Your task to perform on an android device: Search for a new lawnmower on home depot Image 0: 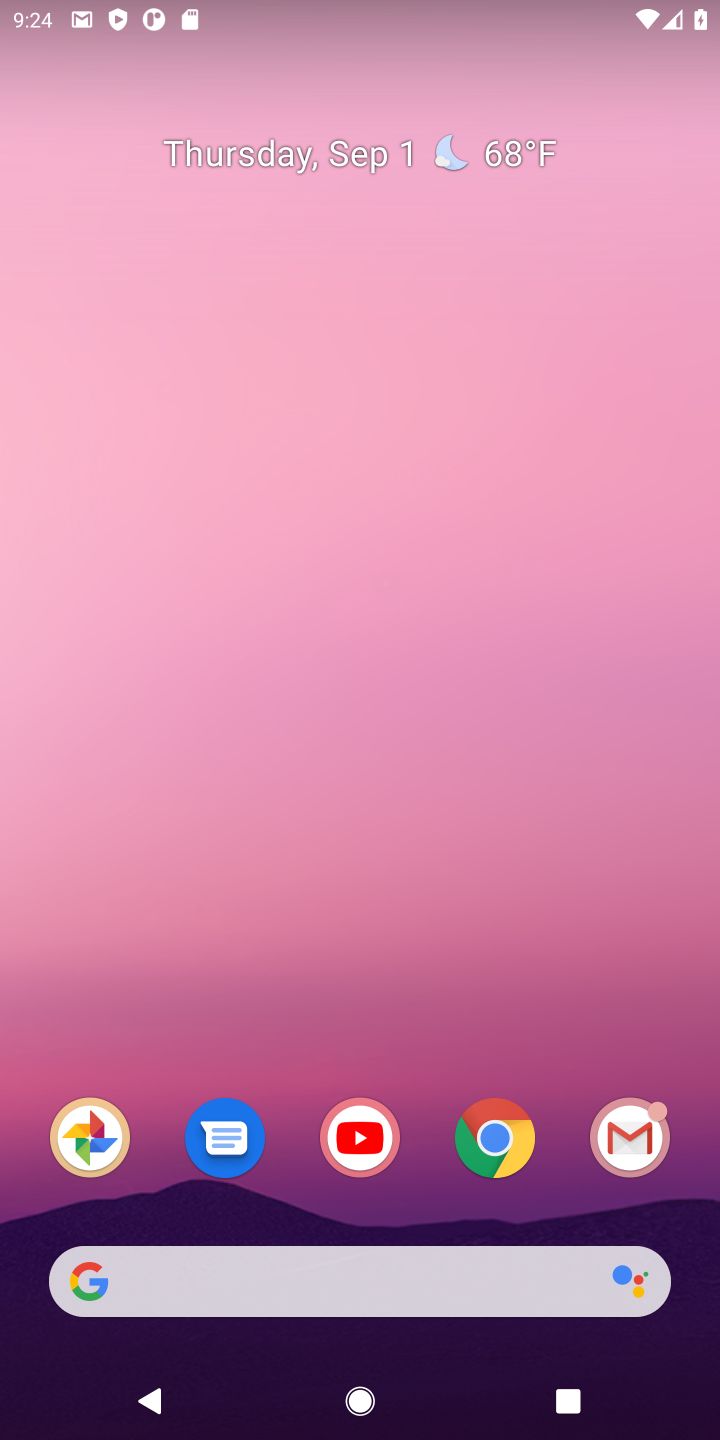
Step 0: click (502, 1133)
Your task to perform on an android device: Search for a new lawnmower on home depot Image 1: 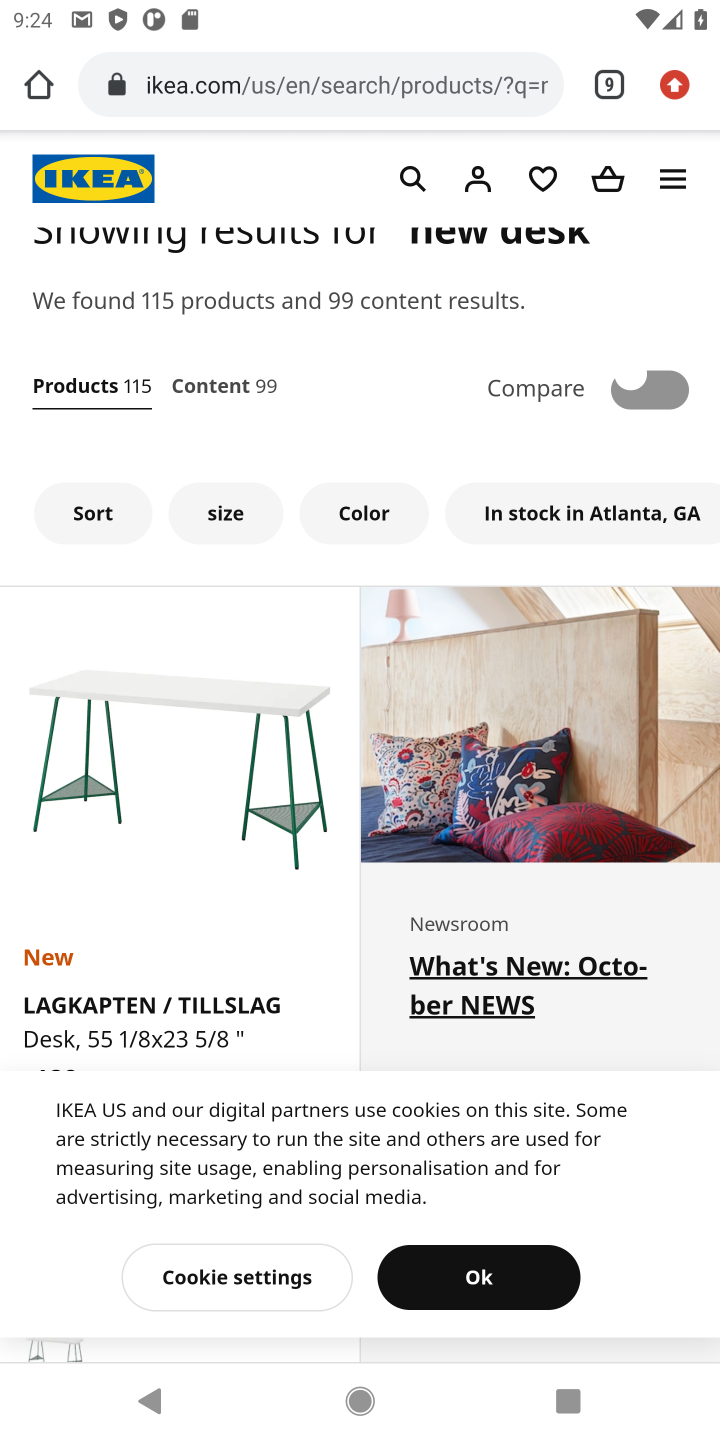
Step 1: click (603, 88)
Your task to perform on an android device: Search for a new lawnmower on home depot Image 2: 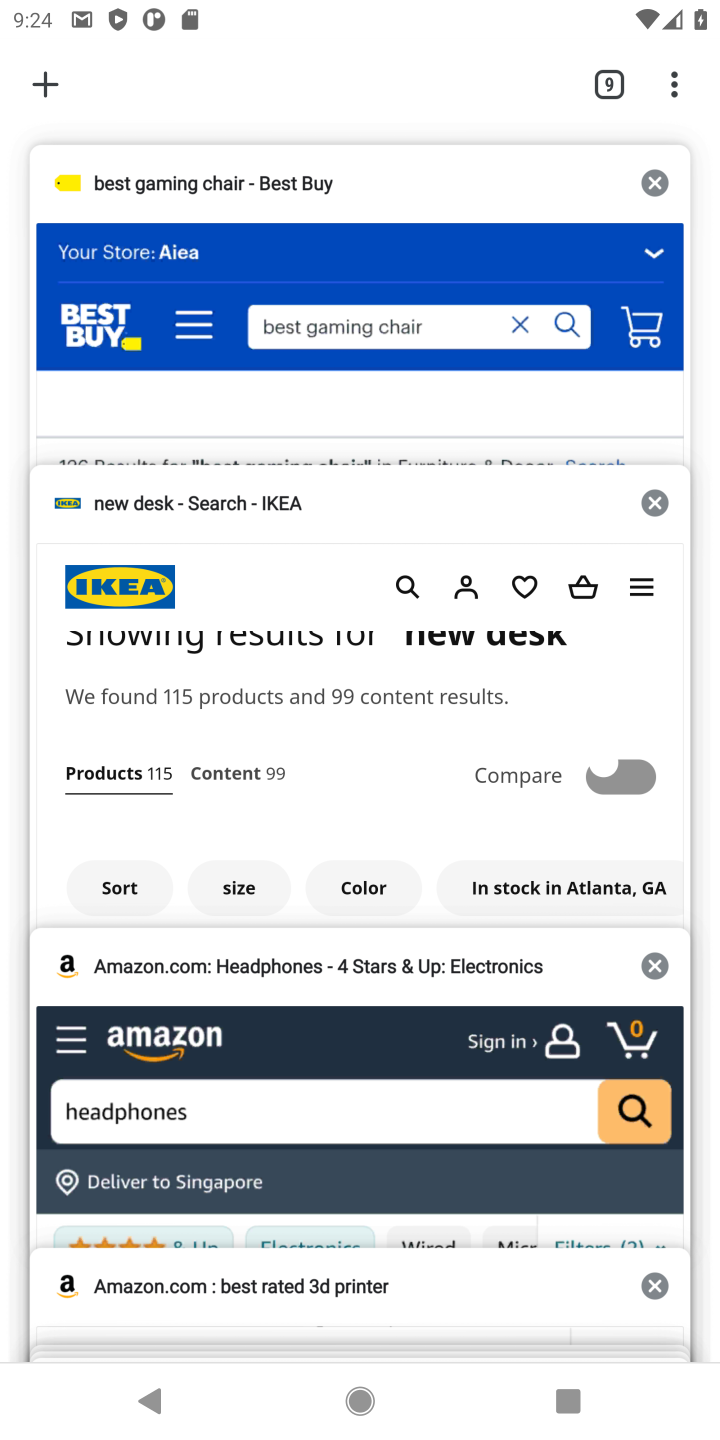
Step 2: drag from (222, 1010) to (172, 440)
Your task to perform on an android device: Search for a new lawnmower on home depot Image 3: 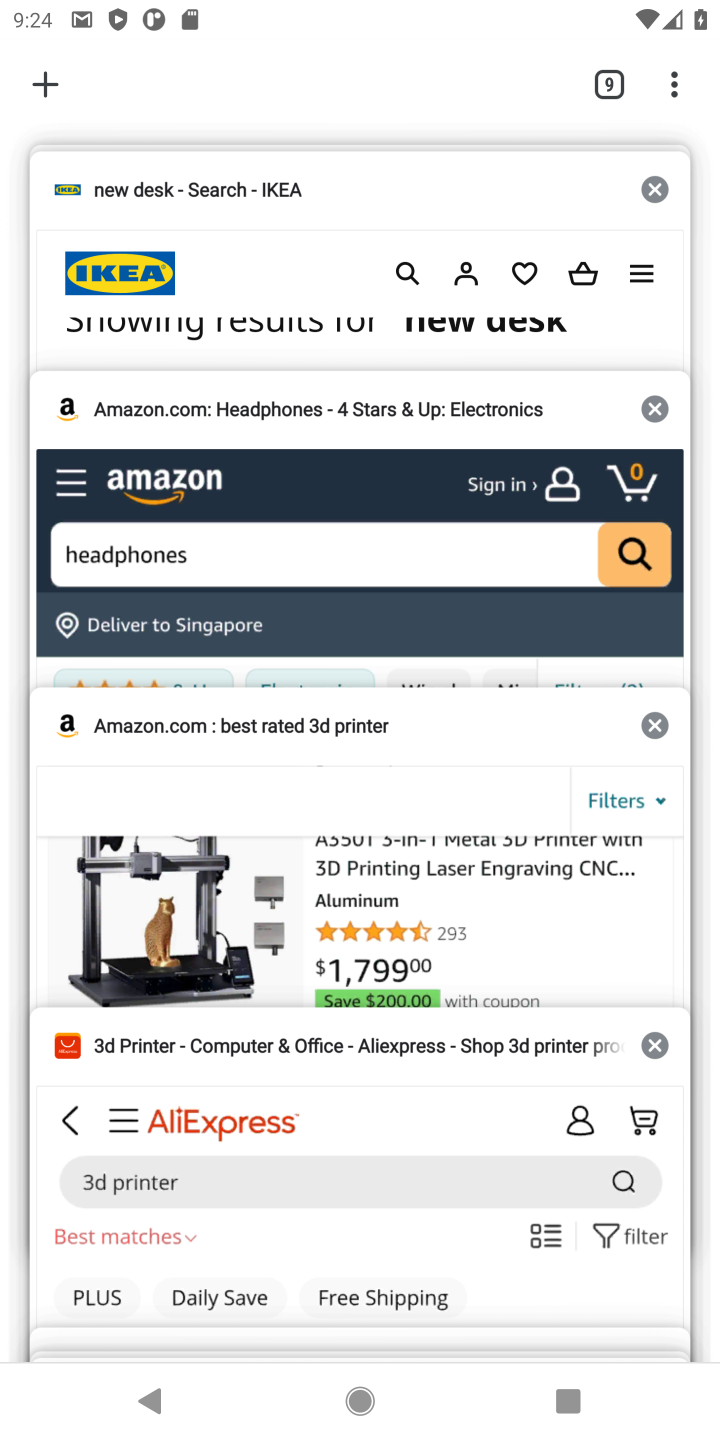
Step 3: drag from (296, 838) to (246, 139)
Your task to perform on an android device: Search for a new lawnmower on home depot Image 4: 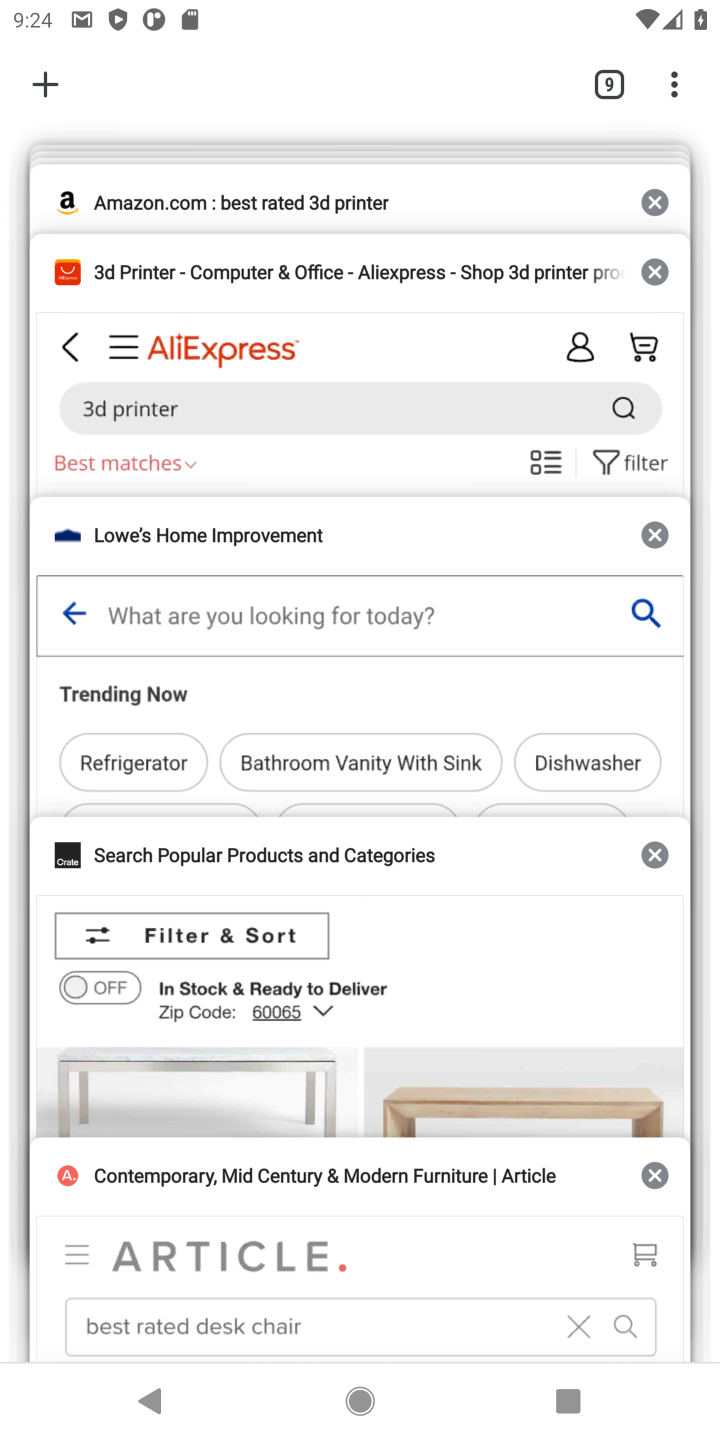
Step 4: drag from (314, 1108) to (321, 517)
Your task to perform on an android device: Search for a new lawnmower on home depot Image 5: 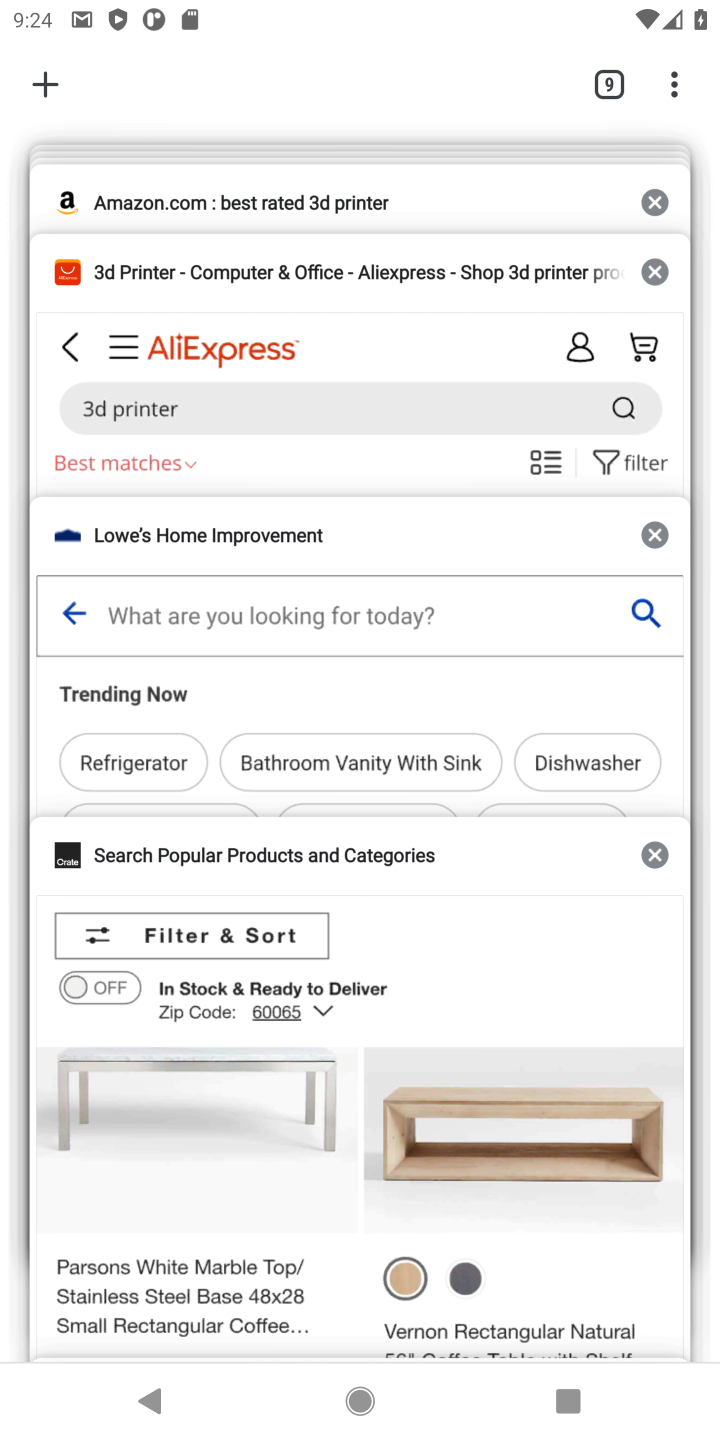
Step 5: click (39, 73)
Your task to perform on an android device: Search for a new lawnmower on home depot Image 6: 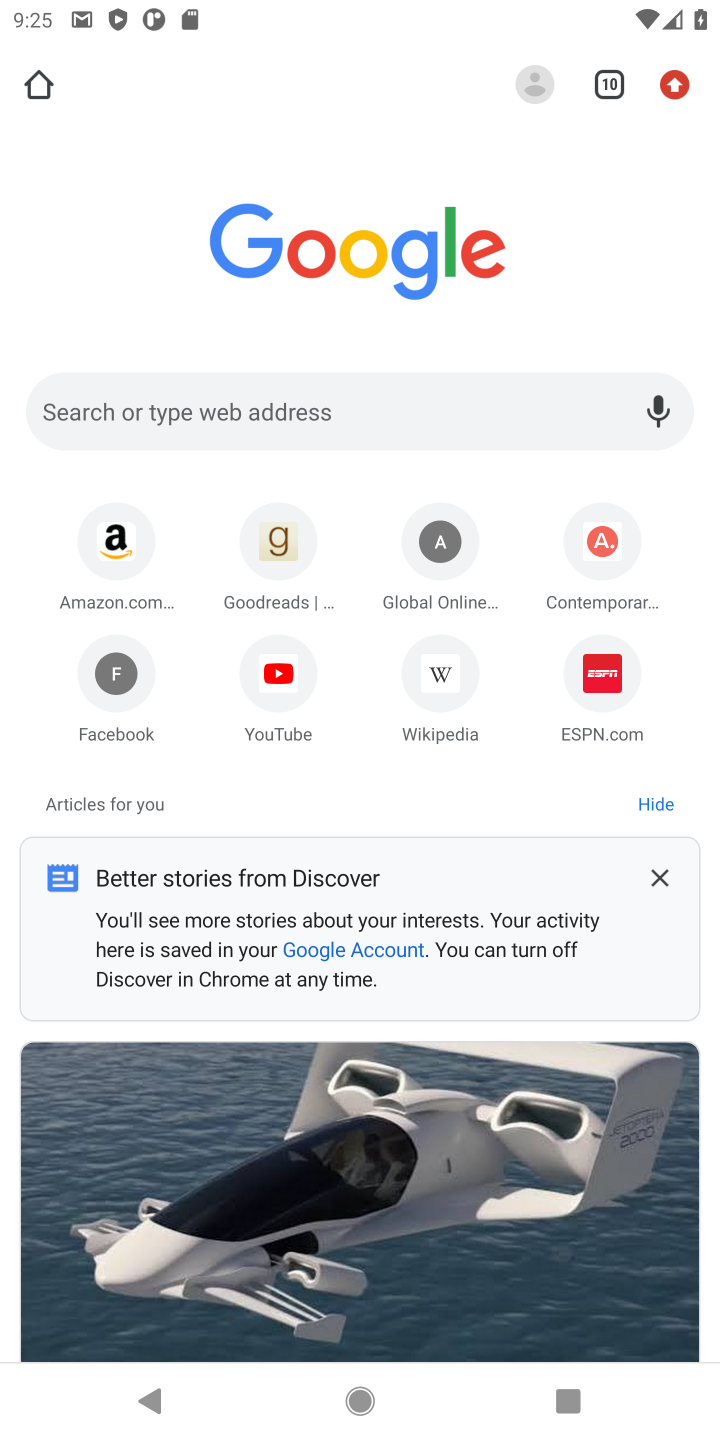
Step 6: click (174, 403)
Your task to perform on an android device: Search for a new lawnmower on home depot Image 7: 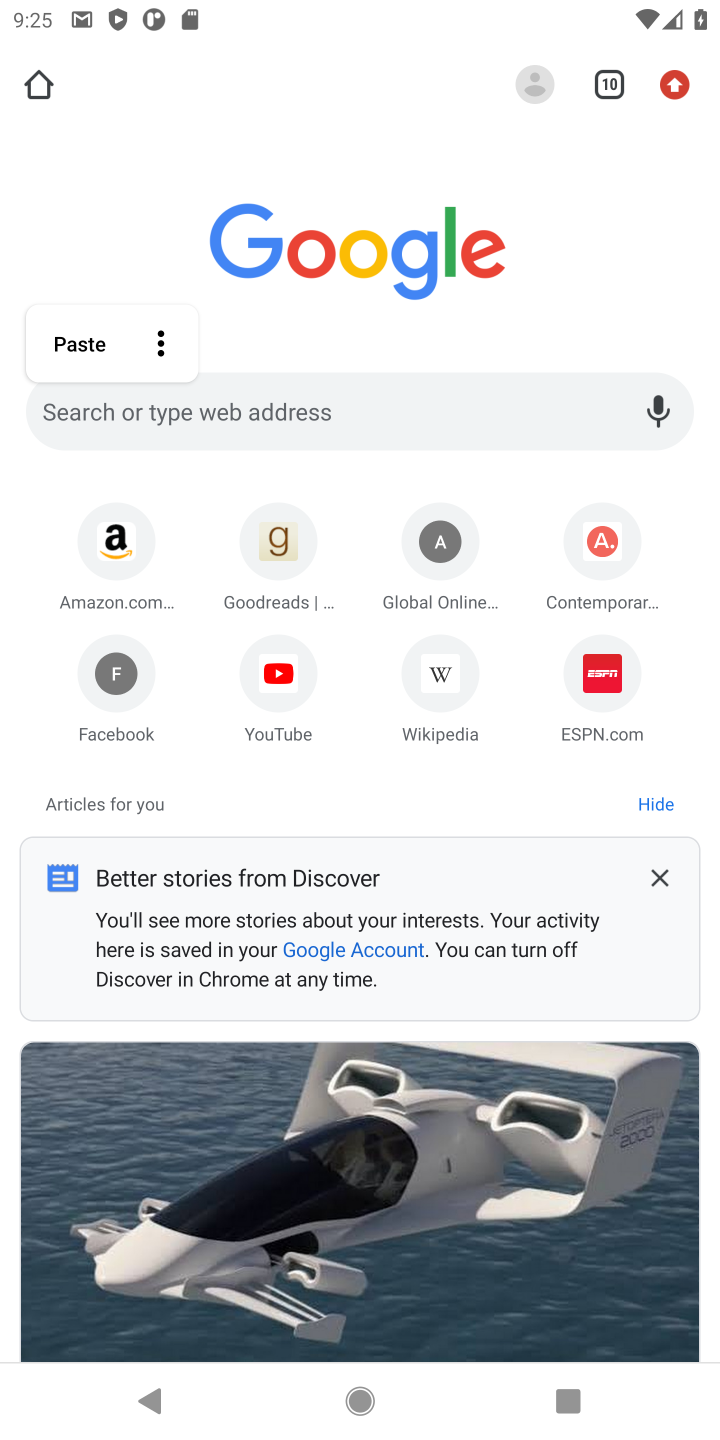
Step 7: type "home depot"
Your task to perform on an android device: Search for a new lawnmower on home depot Image 8: 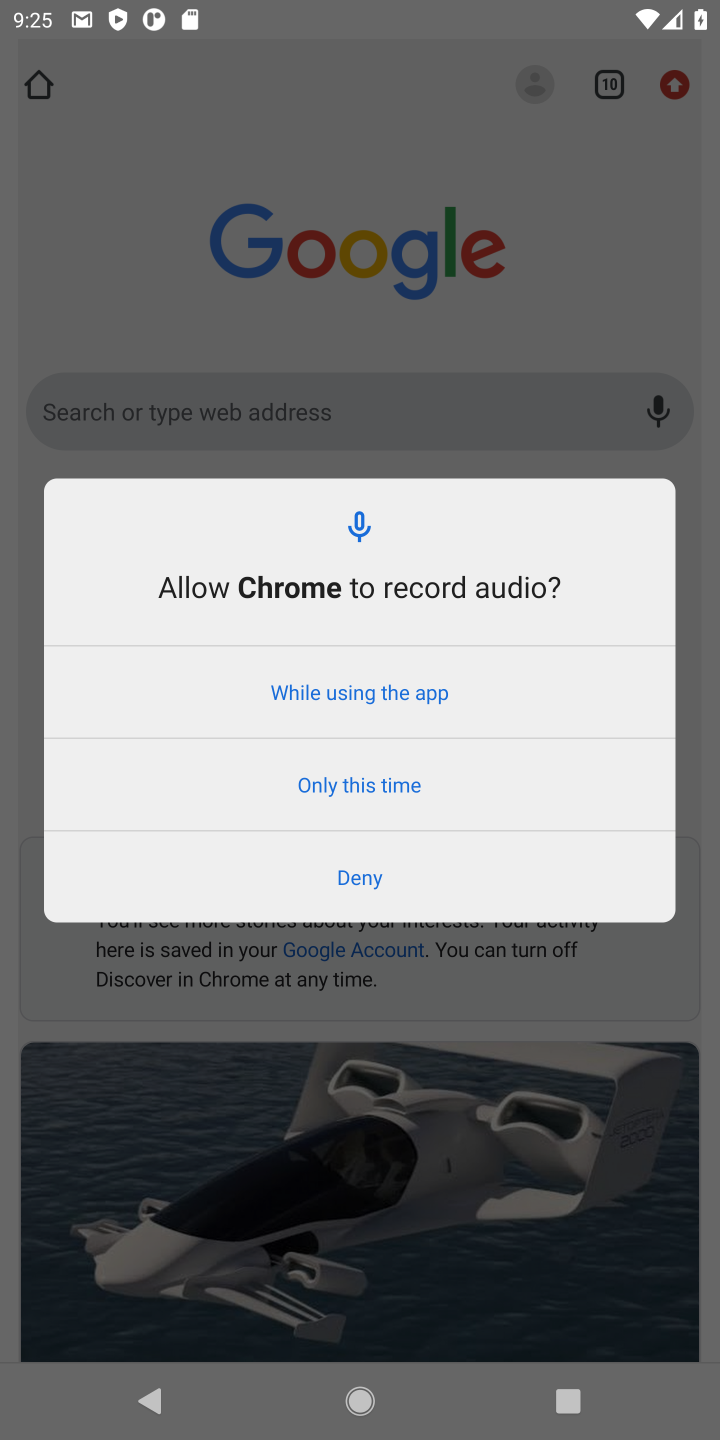
Step 8: click (367, 873)
Your task to perform on an android device: Search for a new lawnmower on home depot Image 9: 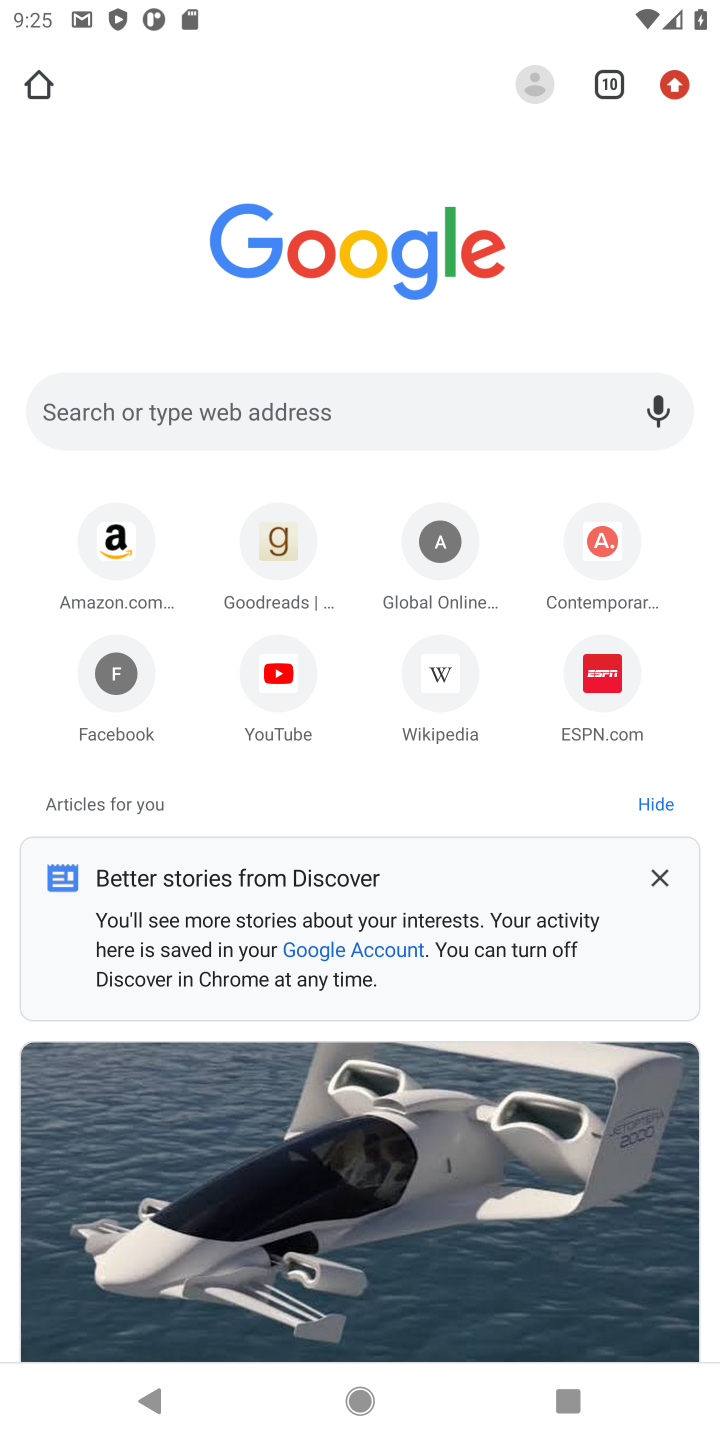
Step 9: click (122, 395)
Your task to perform on an android device: Search for a new lawnmower on home depot Image 10: 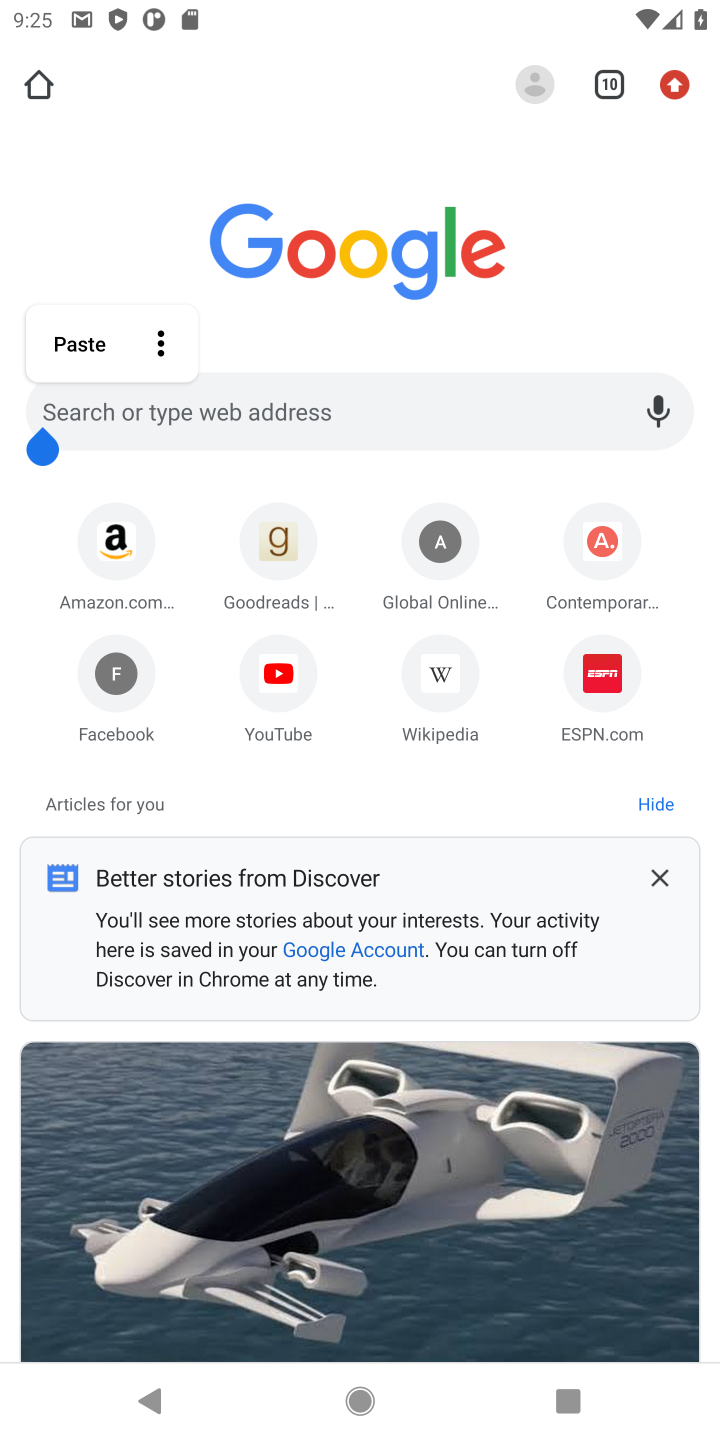
Step 10: type "home depot"
Your task to perform on an android device: Search for a new lawnmower on home depot Image 11: 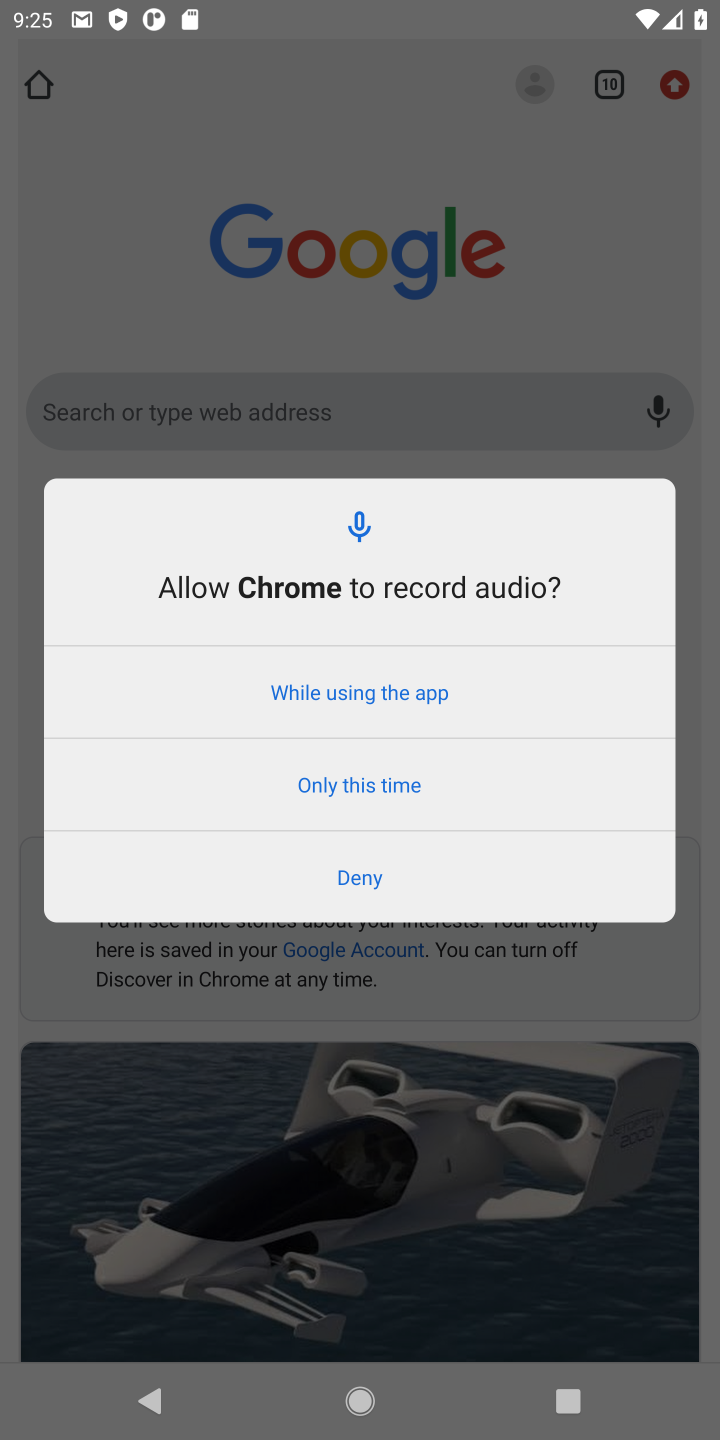
Step 11: click (356, 888)
Your task to perform on an android device: Search for a new lawnmower on home depot Image 12: 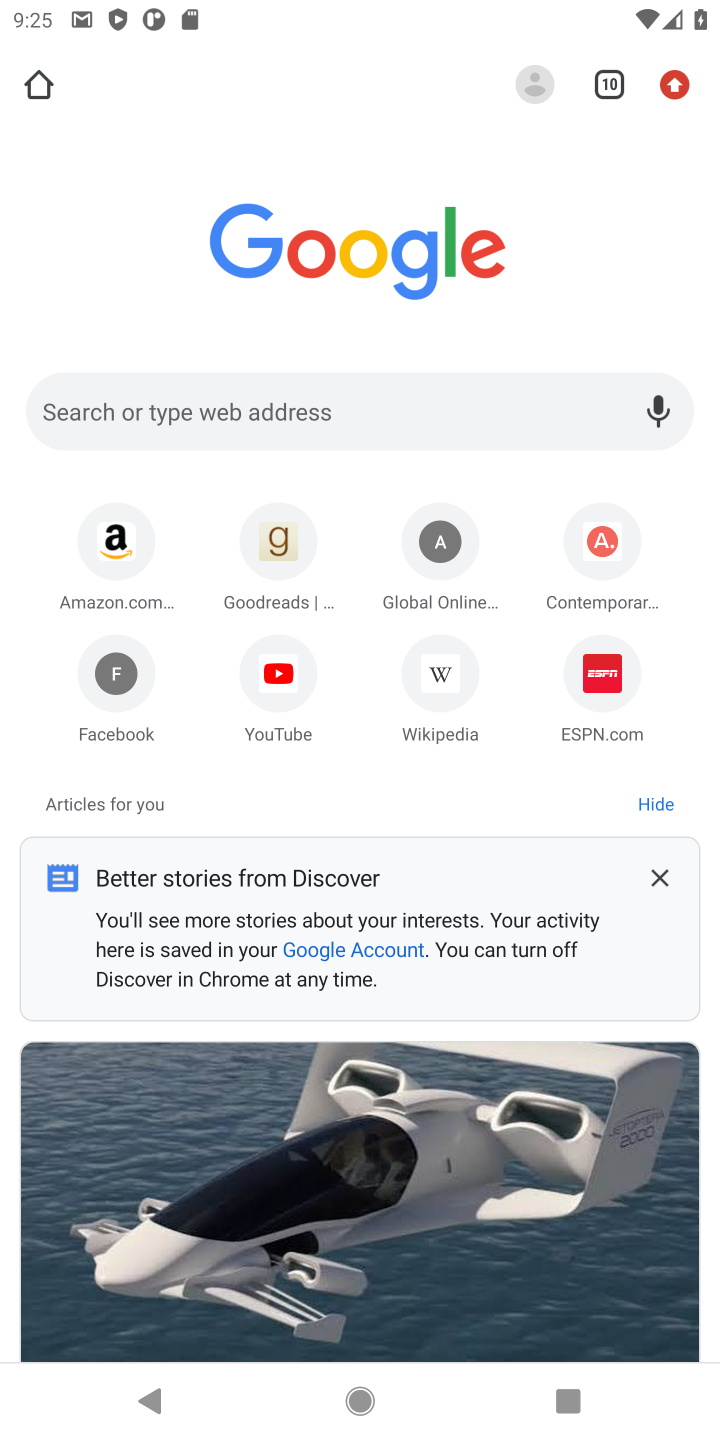
Step 12: click (221, 436)
Your task to perform on an android device: Search for a new lawnmower on home depot Image 13: 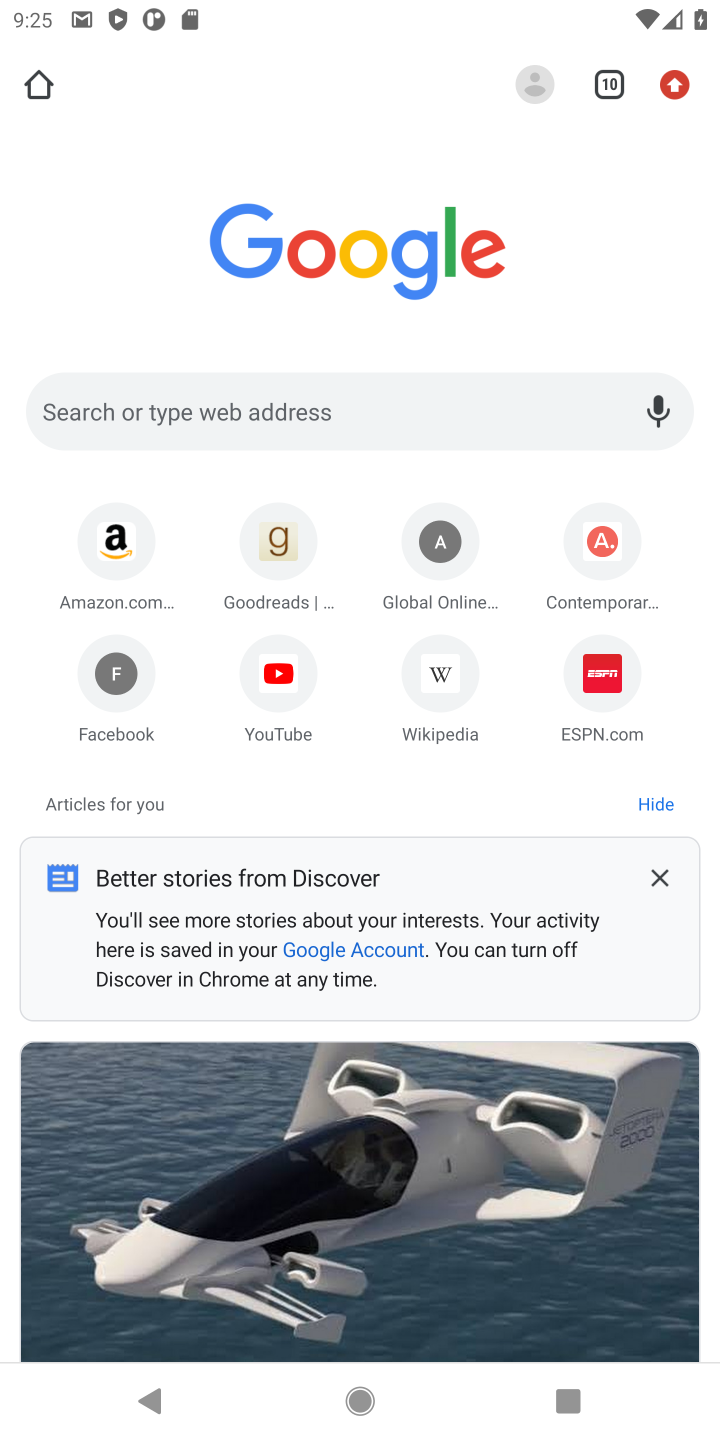
Step 13: click (216, 429)
Your task to perform on an android device: Search for a new lawnmower on home depot Image 14: 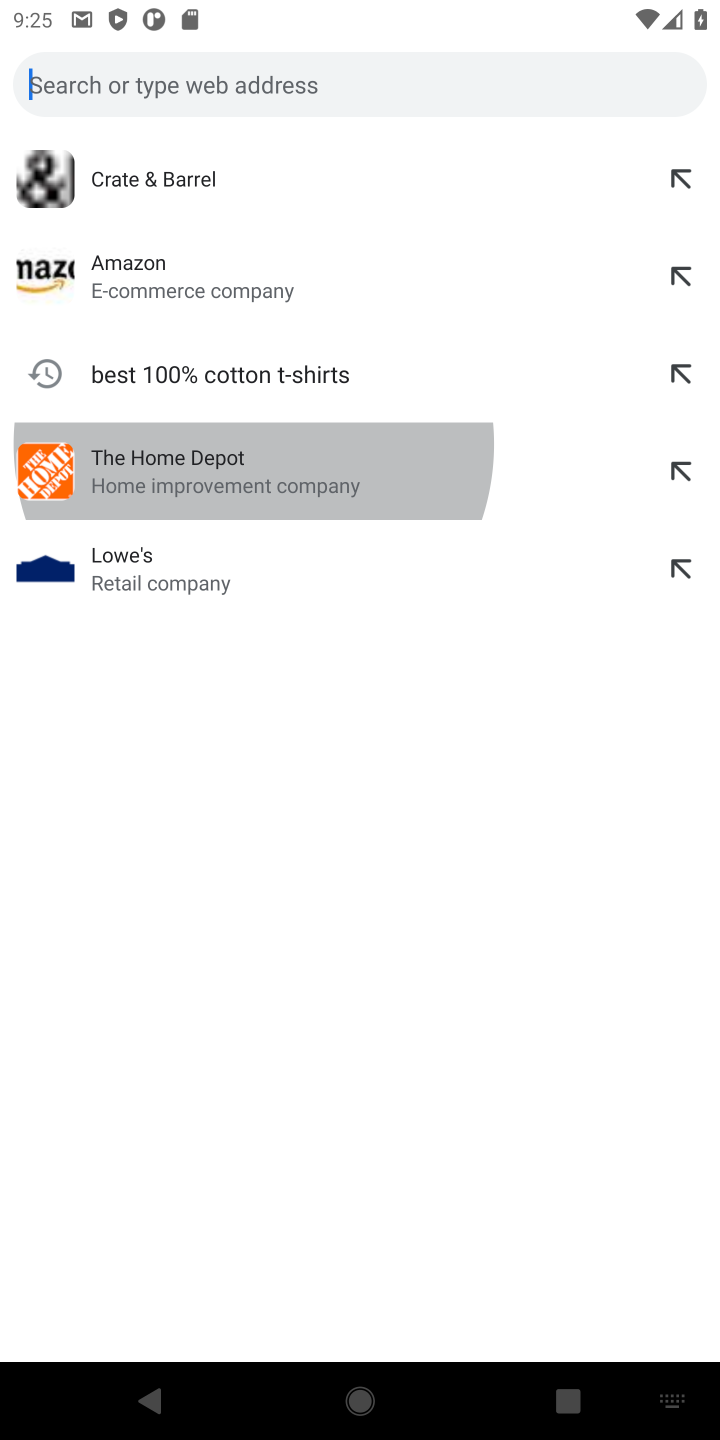
Step 14: click (176, 418)
Your task to perform on an android device: Search for a new lawnmower on home depot Image 15: 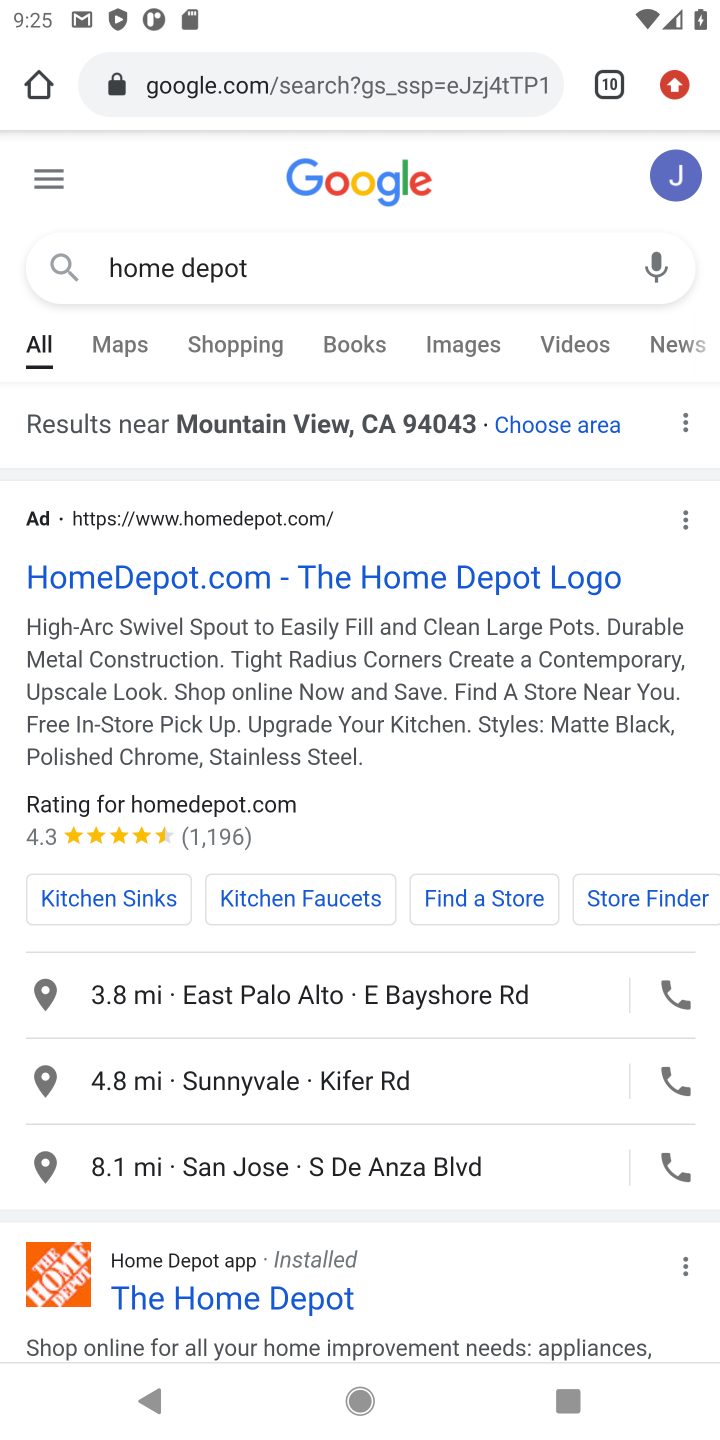
Step 15: click (267, 581)
Your task to perform on an android device: Search for a new lawnmower on home depot Image 16: 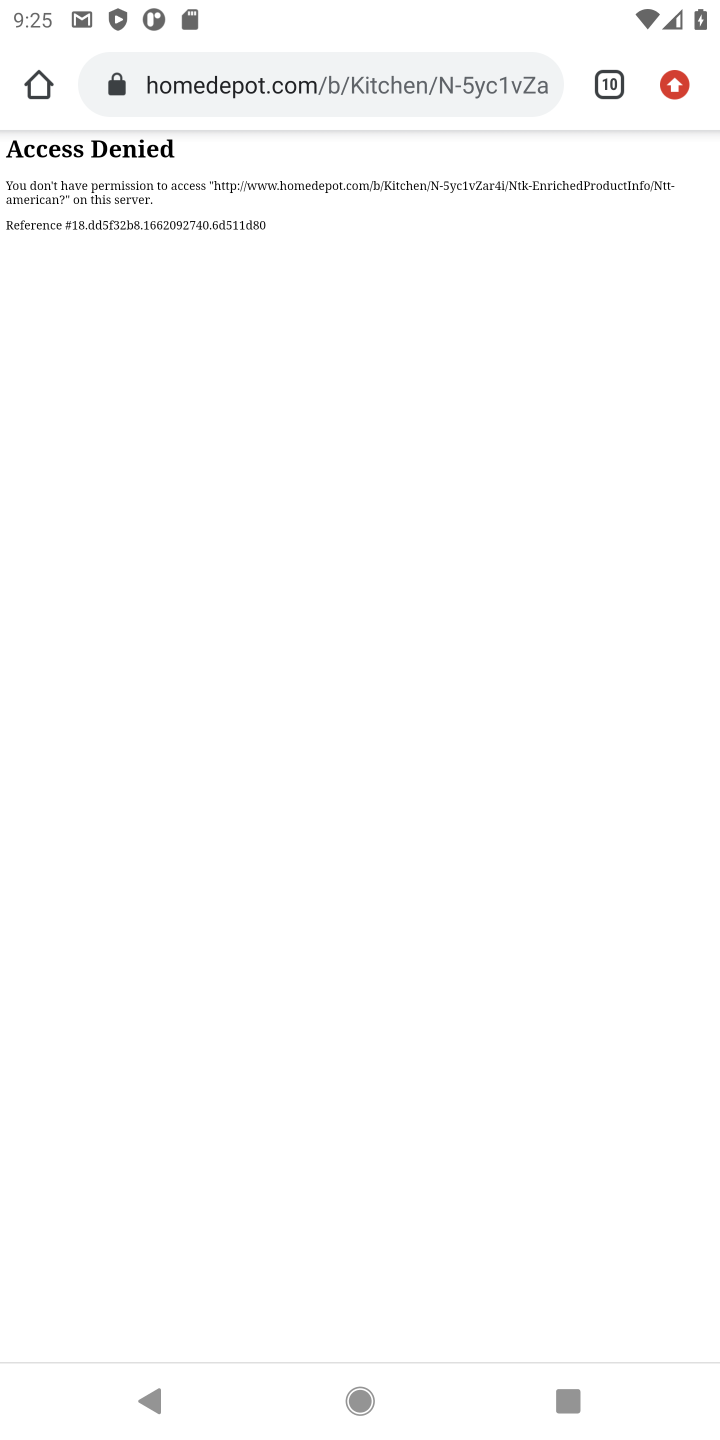
Step 16: task complete